Your task to perform on an android device: add a contact in the contacts app Image 0: 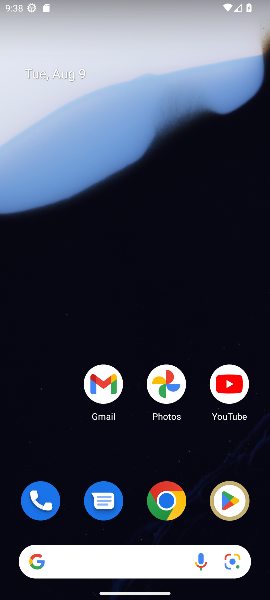
Step 0: drag from (136, 463) to (133, 98)
Your task to perform on an android device: add a contact in the contacts app Image 1: 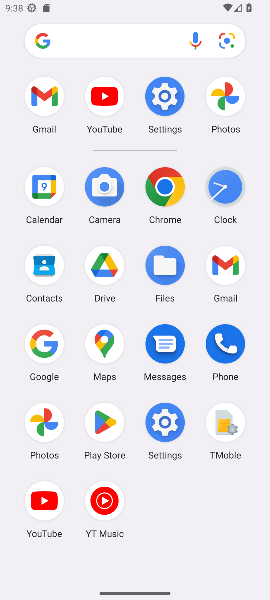
Step 1: click (38, 265)
Your task to perform on an android device: add a contact in the contacts app Image 2: 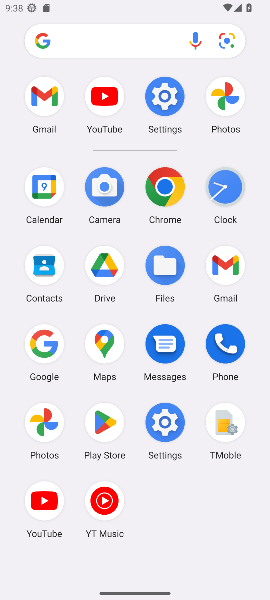
Step 2: click (49, 275)
Your task to perform on an android device: add a contact in the contacts app Image 3: 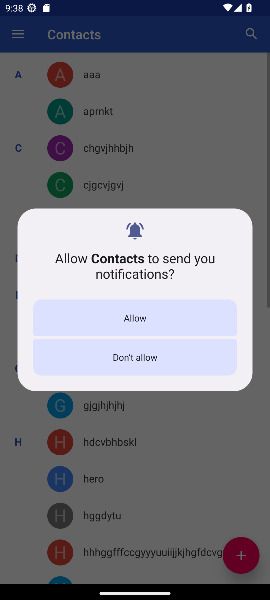
Step 3: click (133, 316)
Your task to perform on an android device: add a contact in the contacts app Image 4: 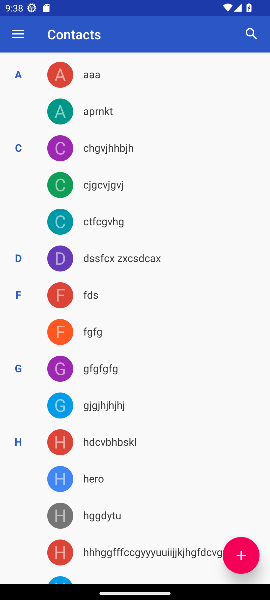
Step 4: click (239, 555)
Your task to perform on an android device: add a contact in the contacts app Image 5: 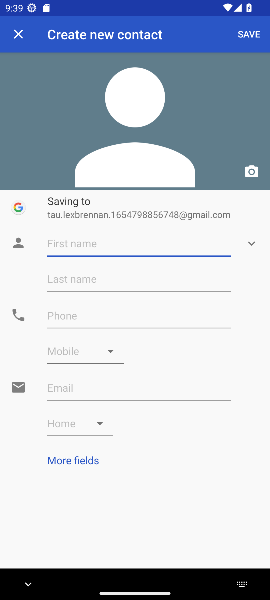
Step 5: type "Niru"
Your task to perform on an android device: add a contact in the contacts app Image 6: 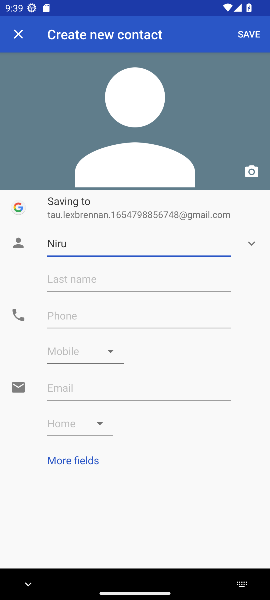
Step 6: click (67, 280)
Your task to perform on an android device: add a contact in the contacts app Image 7: 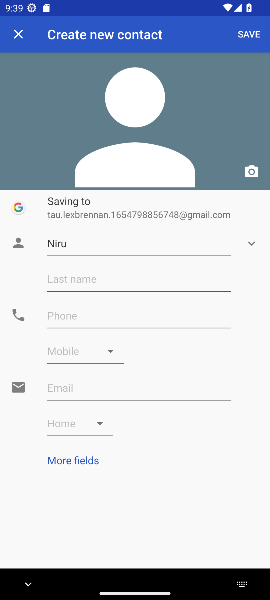
Step 7: type "Shah"
Your task to perform on an android device: add a contact in the contacts app Image 8: 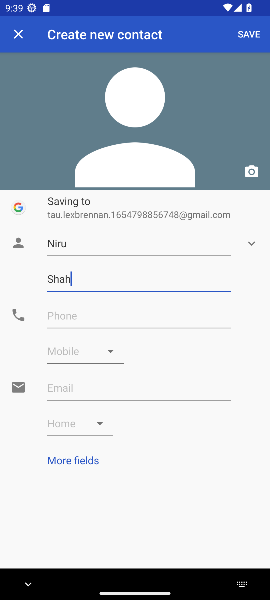
Step 8: click (203, 312)
Your task to perform on an android device: add a contact in the contacts app Image 9: 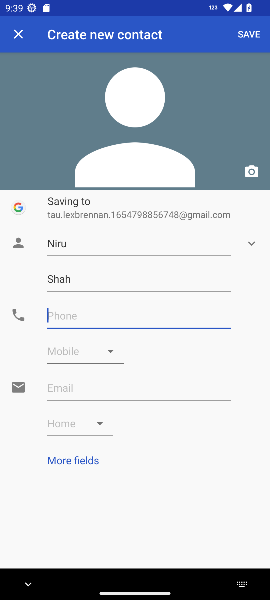
Step 9: type "6789009876"
Your task to perform on an android device: add a contact in the contacts app Image 10: 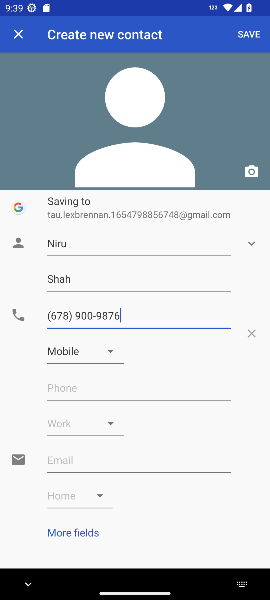
Step 10: click (248, 34)
Your task to perform on an android device: add a contact in the contacts app Image 11: 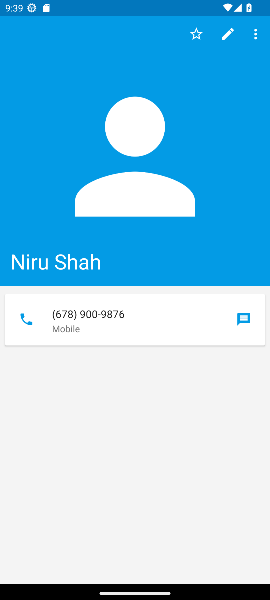
Step 11: task complete